Your task to perform on an android device: add a label to a message in the gmail app Image 0: 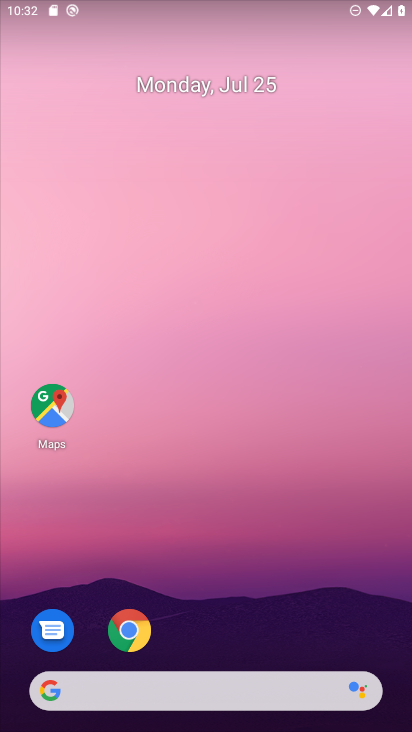
Step 0: drag from (285, 610) to (212, 55)
Your task to perform on an android device: add a label to a message in the gmail app Image 1: 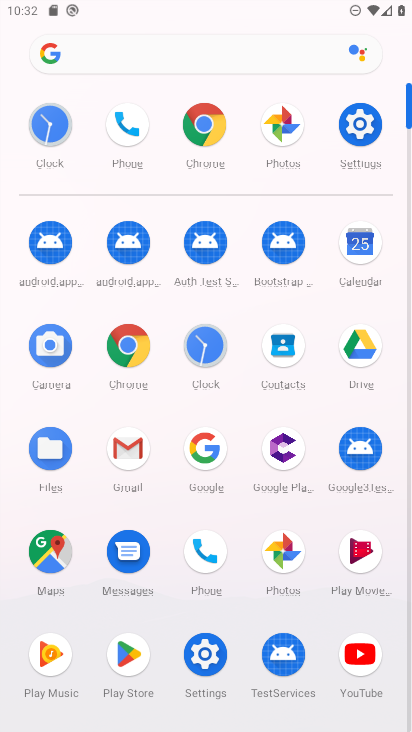
Step 1: click (148, 463)
Your task to perform on an android device: add a label to a message in the gmail app Image 2: 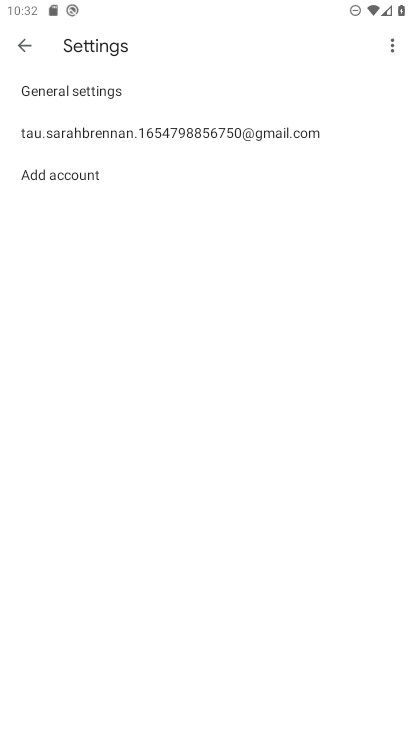
Step 2: click (23, 38)
Your task to perform on an android device: add a label to a message in the gmail app Image 3: 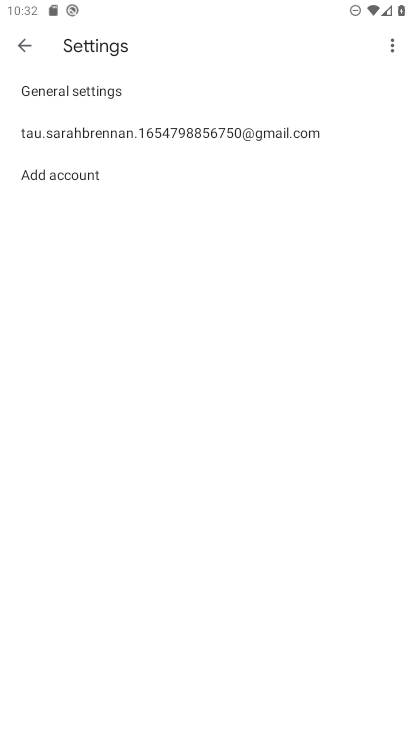
Step 3: click (23, 38)
Your task to perform on an android device: add a label to a message in the gmail app Image 4: 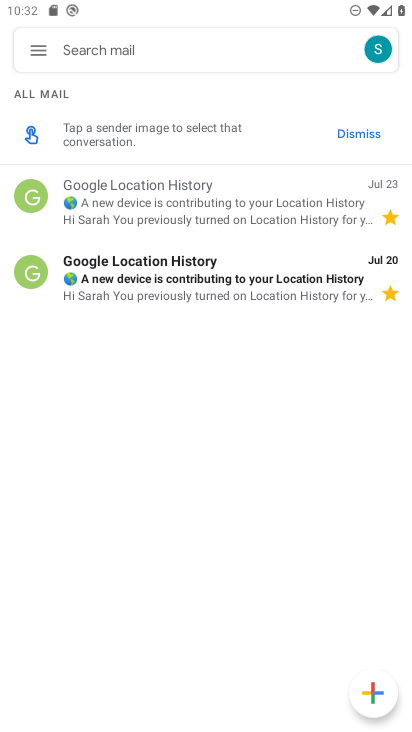
Step 4: click (31, 39)
Your task to perform on an android device: add a label to a message in the gmail app Image 5: 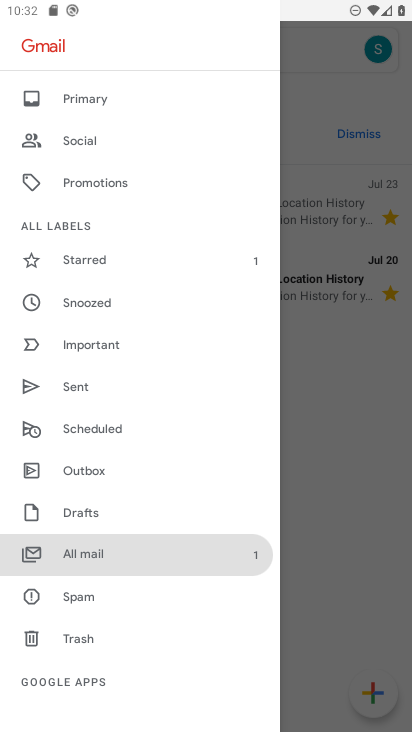
Step 5: click (326, 364)
Your task to perform on an android device: add a label to a message in the gmail app Image 6: 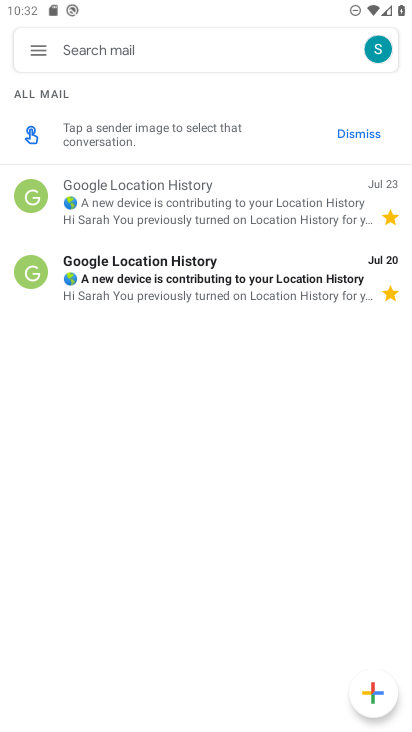
Step 6: drag from (247, 221) to (274, 154)
Your task to perform on an android device: add a label to a message in the gmail app Image 7: 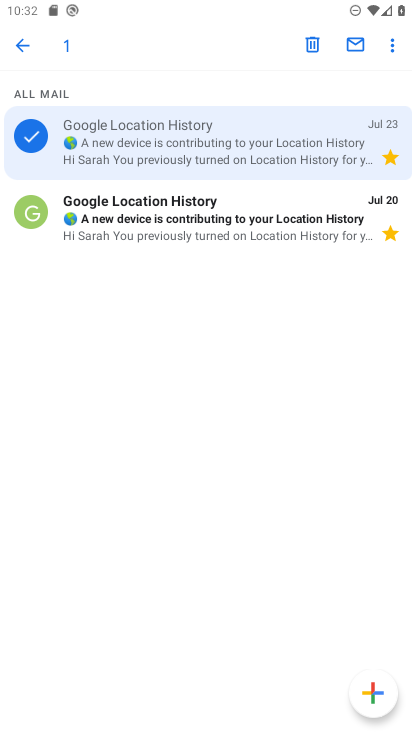
Step 7: click (393, 35)
Your task to perform on an android device: add a label to a message in the gmail app Image 8: 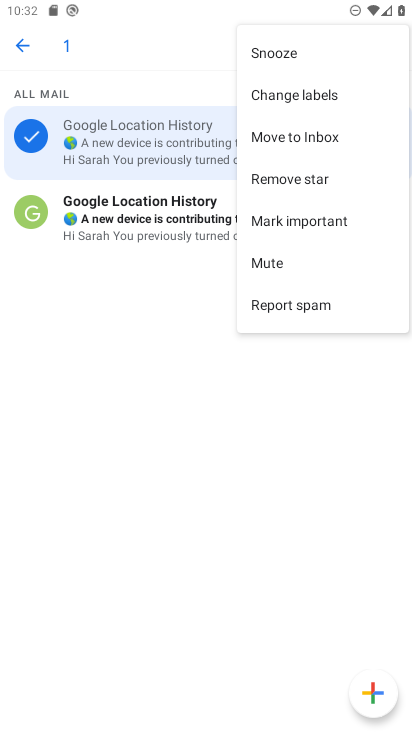
Step 8: click (308, 97)
Your task to perform on an android device: add a label to a message in the gmail app Image 9: 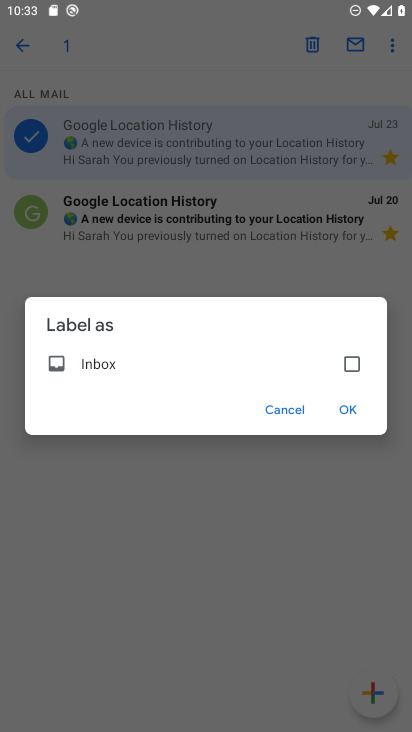
Step 9: click (298, 404)
Your task to perform on an android device: add a label to a message in the gmail app Image 10: 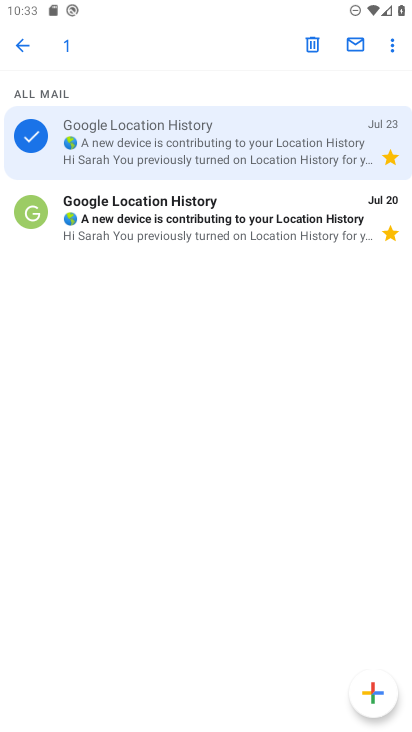
Step 10: click (383, 44)
Your task to perform on an android device: add a label to a message in the gmail app Image 11: 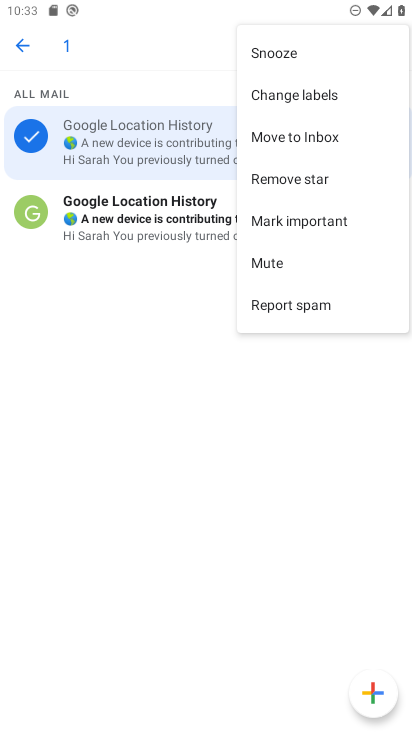
Step 11: click (259, 377)
Your task to perform on an android device: add a label to a message in the gmail app Image 12: 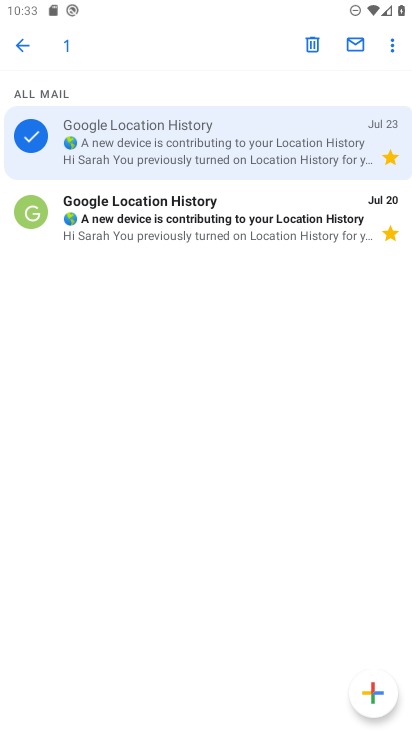
Step 12: task complete